Your task to perform on an android device: Open location settings Image 0: 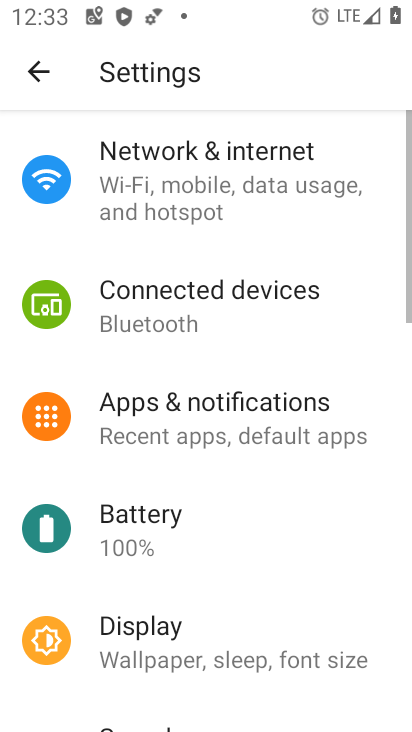
Step 0: press home button
Your task to perform on an android device: Open location settings Image 1: 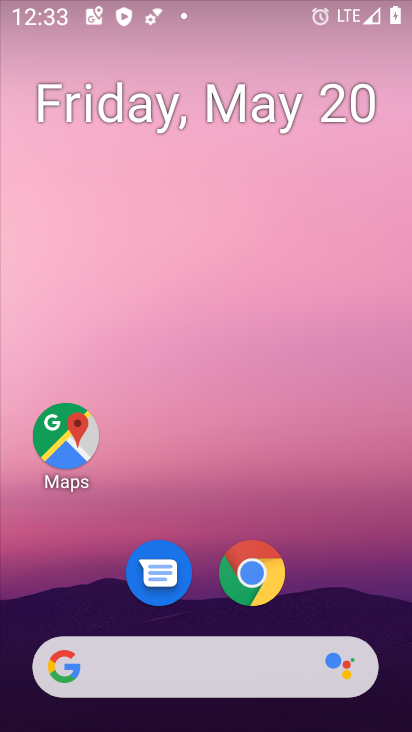
Step 1: drag from (322, 565) to (340, 92)
Your task to perform on an android device: Open location settings Image 2: 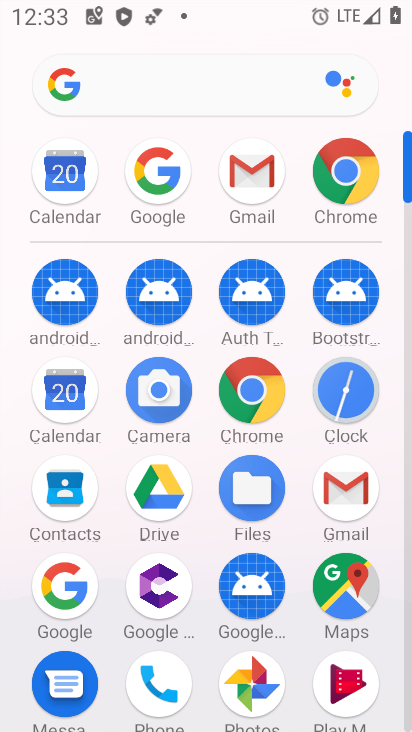
Step 2: drag from (293, 625) to (288, 180)
Your task to perform on an android device: Open location settings Image 3: 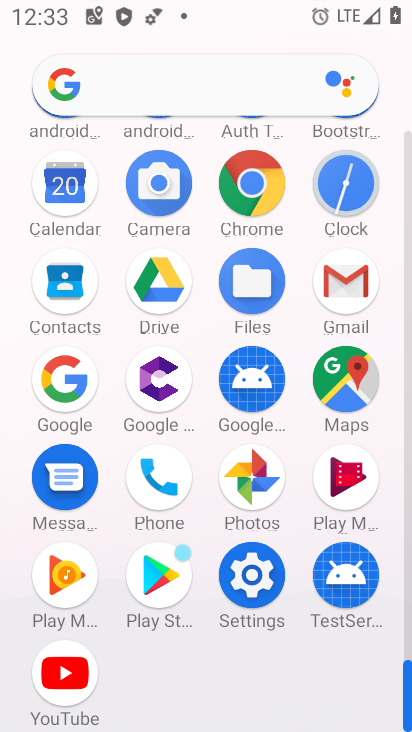
Step 3: click (250, 578)
Your task to perform on an android device: Open location settings Image 4: 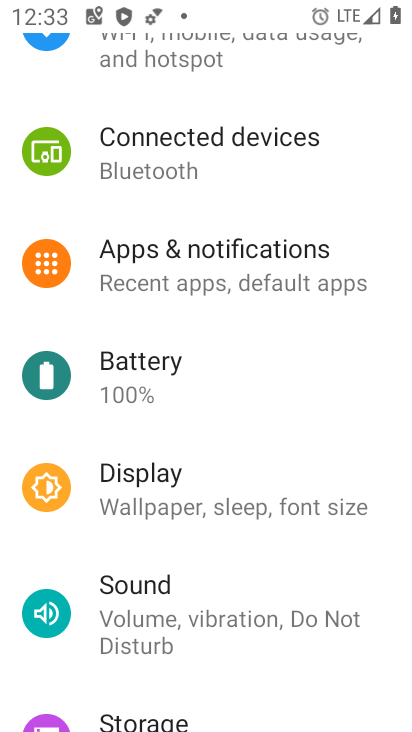
Step 4: drag from (196, 198) to (291, 81)
Your task to perform on an android device: Open location settings Image 5: 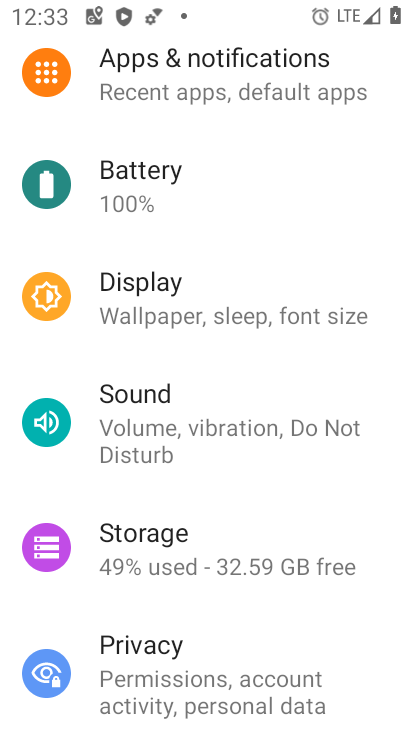
Step 5: drag from (203, 658) to (242, 267)
Your task to perform on an android device: Open location settings Image 6: 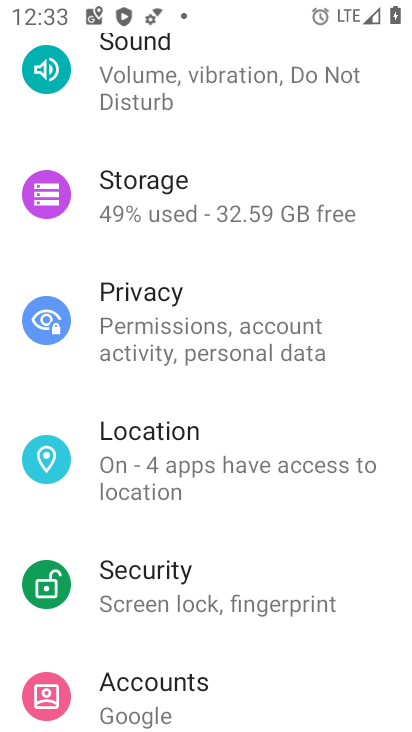
Step 6: click (199, 453)
Your task to perform on an android device: Open location settings Image 7: 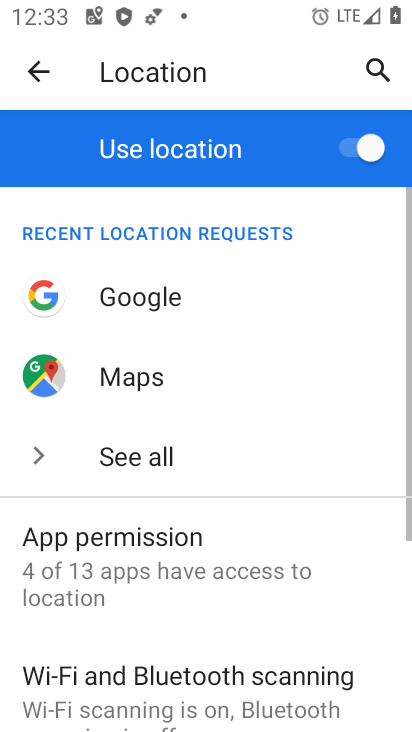
Step 7: task complete